Your task to perform on an android device: read, delete, or share a saved page in the chrome app Image 0: 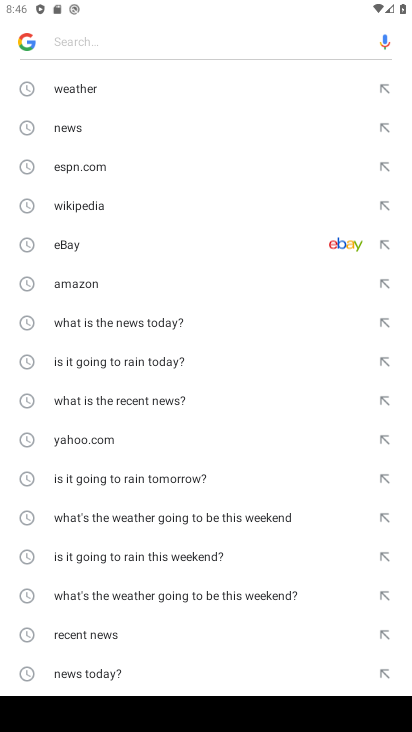
Step 0: press home button
Your task to perform on an android device: read, delete, or share a saved page in the chrome app Image 1: 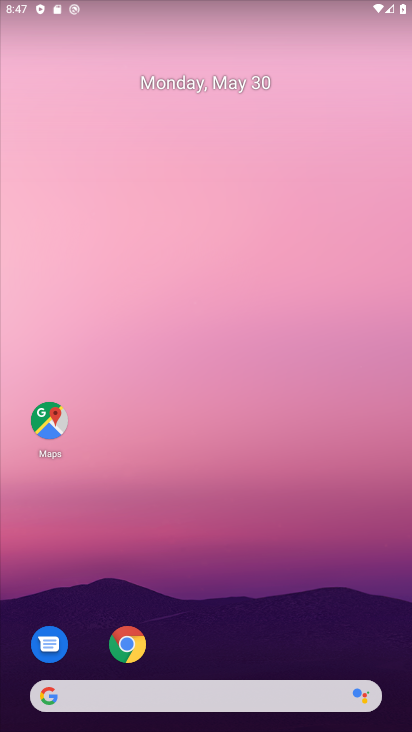
Step 1: click (127, 637)
Your task to perform on an android device: read, delete, or share a saved page in the chrome app Image 2: 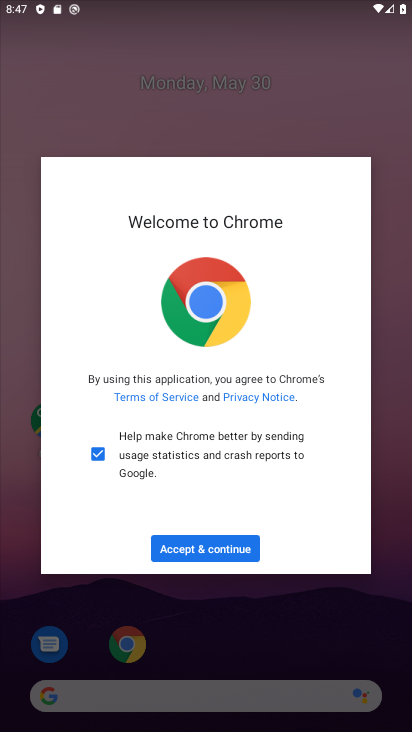
Step 2: click (227, 548)
Your task to perform on an android device: read, delete, or share a saved page in the chrome app Image 3: 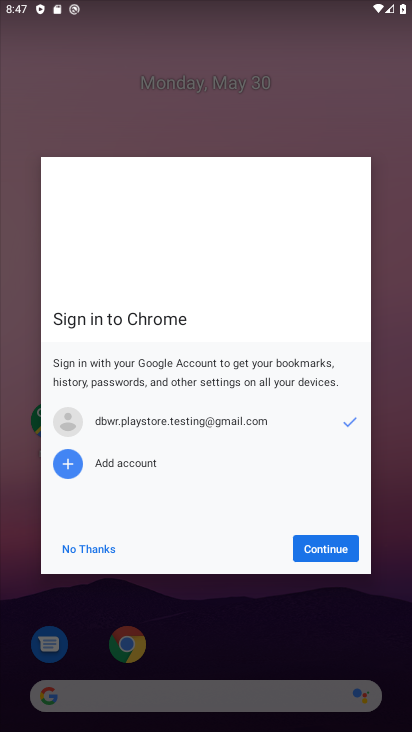
Step 3: click (312, 551)
Your task to perform on an android device: read, delete, or share a saved page in the chrome app Image 4: 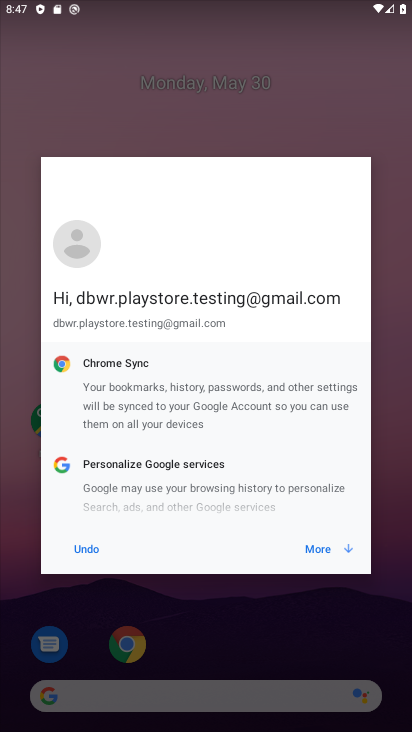
Step 4: click (337, 557)
Your task to perform on an android device: read, delete, or share a saved page in the chrome app Image 5: 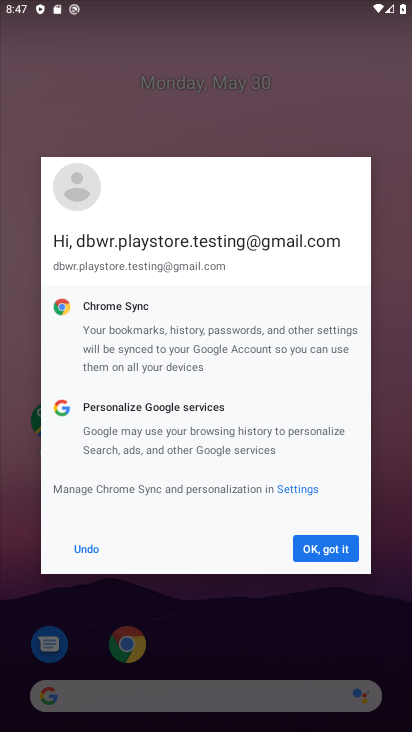
Step 5: click (330, 548)
Your task to perform on an android device: read, delete, or share a saved page in the chrome app Image 6: 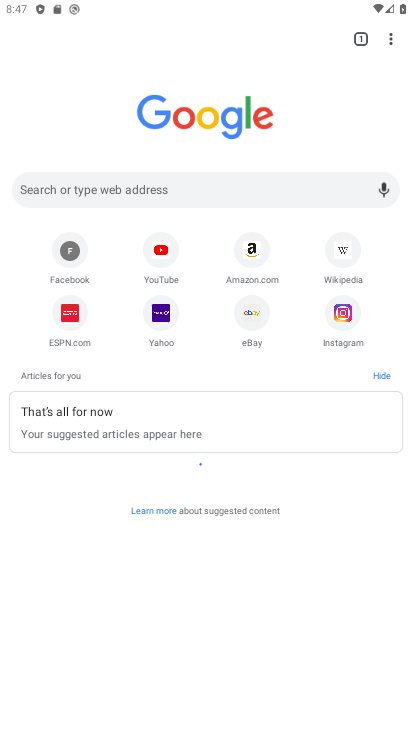
Step 6: drag from (395, 39) to (260, 253)
Your task to perform on an android device: read, delete, or share a saved page in the chrome app Image 7: 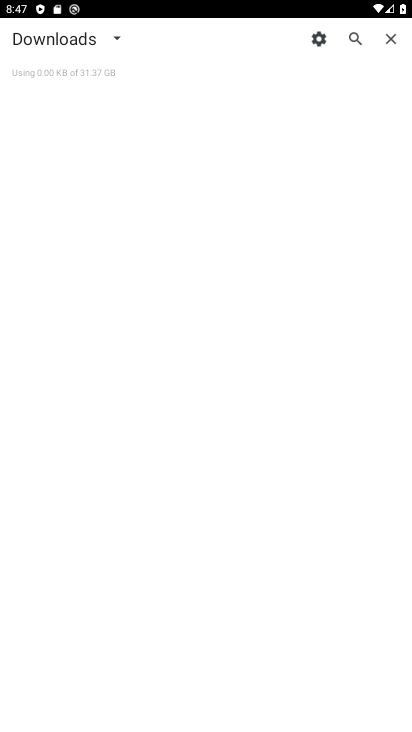
Step 7: click (102, 37)
Your task to perform on an android device: read, delete, or share a saved page in the chrome app Image 8: 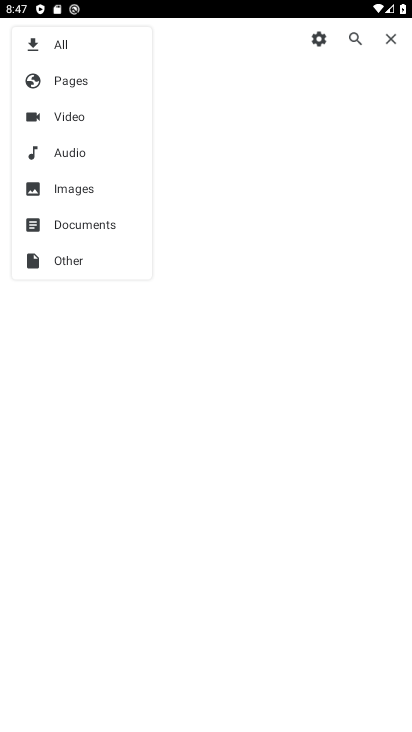
Step 8: click (70, 80)
Your task to perform on an android device: read, delete, or share a saved page in the chrome app Image 9: 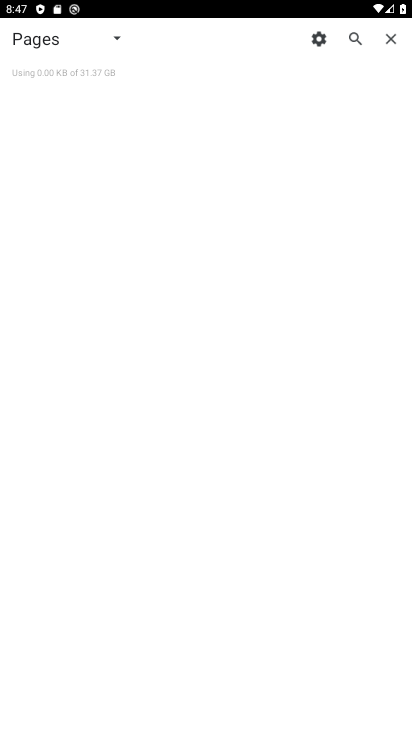
Step 9: task complete